Your task to perform on an android device: Open Google Image 0: 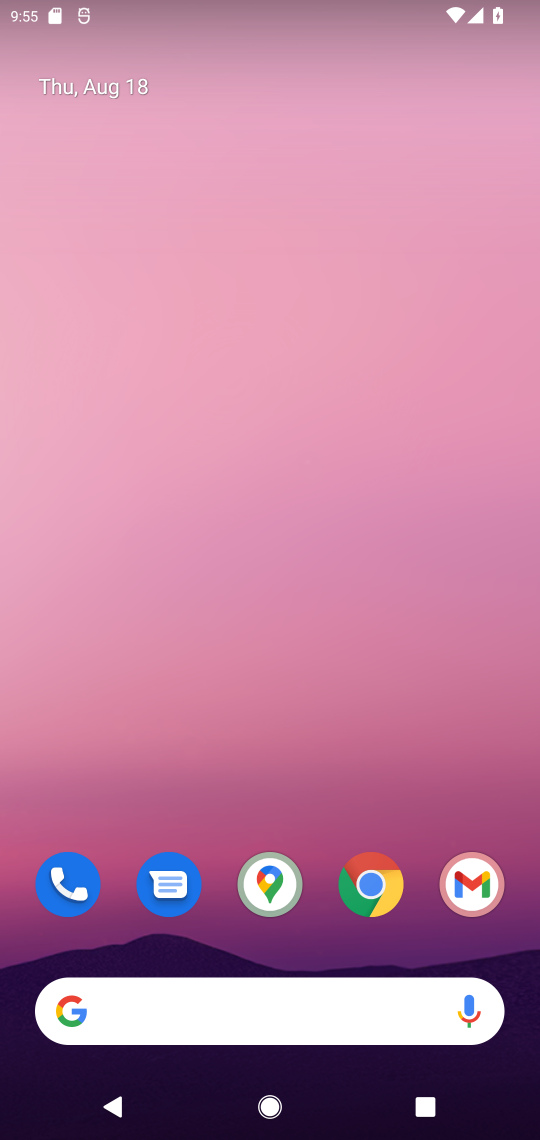
Step 0: click (128, 1023)
Your task to perform on an android device: Open Google Image 1: 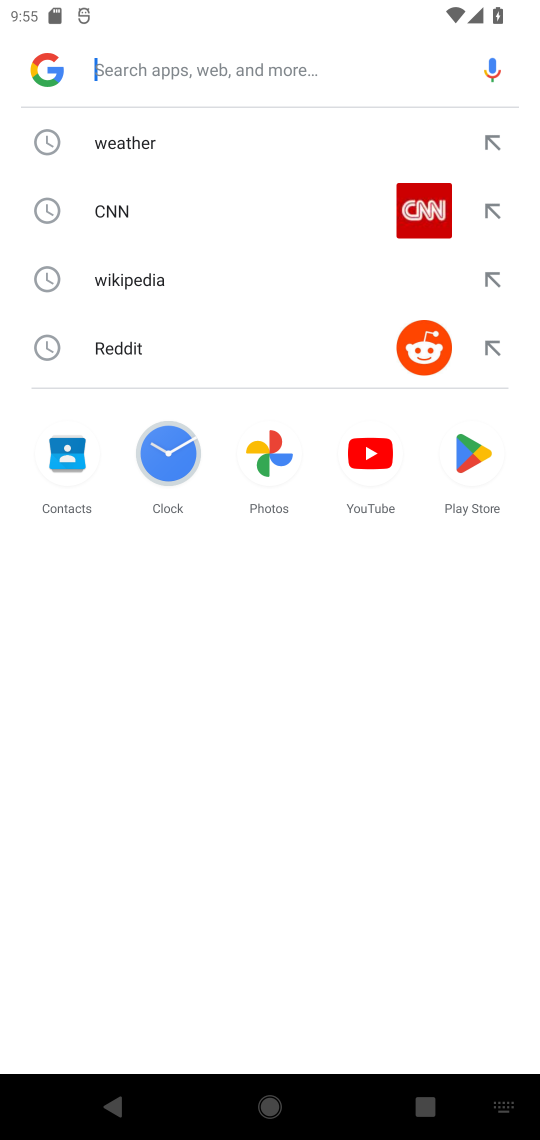
Step 1: task complete